Your task to perform on an android device: open chrome and create a bookmark for the current page Image 0: 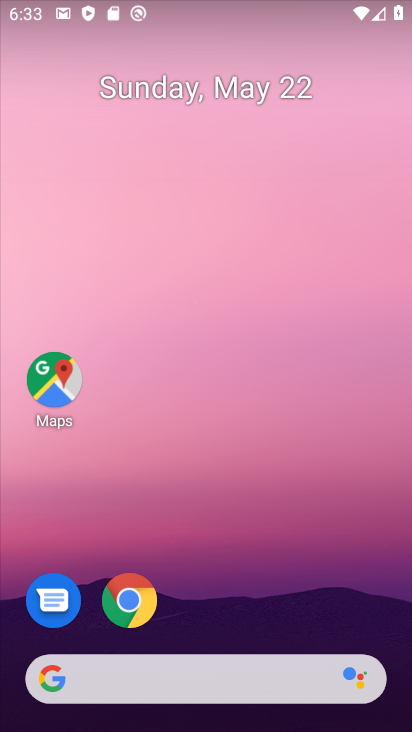
Step 0: drag from (335, 507) to (292, 135)
Your task to perform on an android device: open chrome and create a bookmark for the current page Image 1: 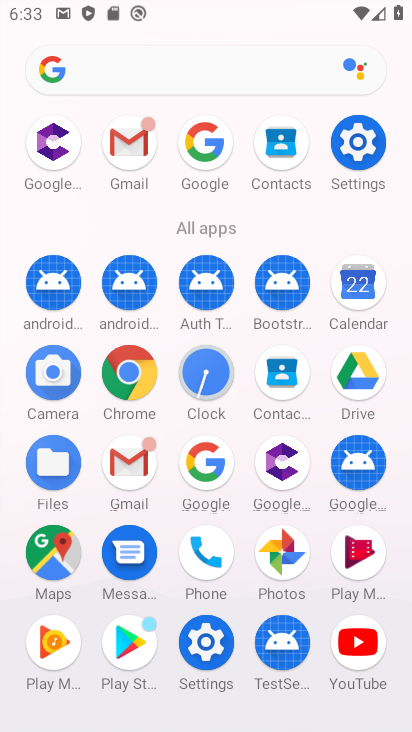
Step 1: click (135, 381)
Your task to perform on an android device: open chrome and create a bookmark for the current page Image 2: 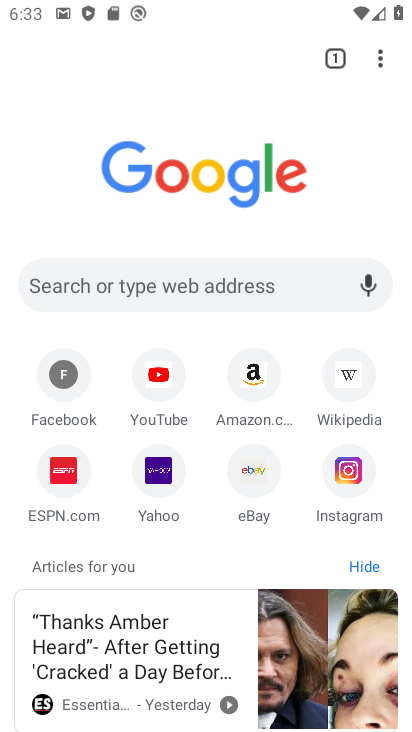
Step 2: click (380, 56)
Your task to perform on an android device: open chrome and create a bookmark for the current page Image 3: 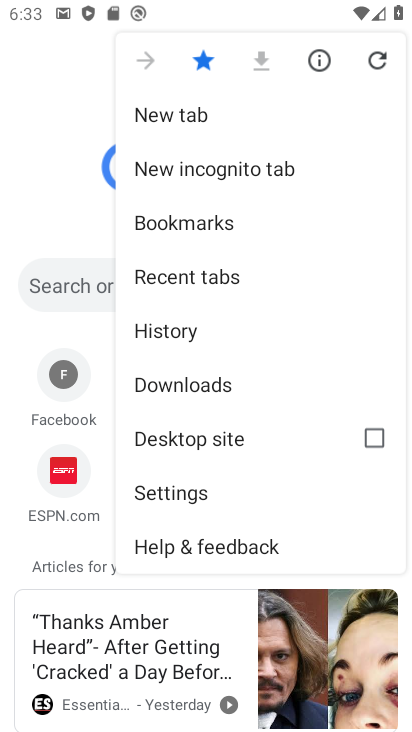
Step 3: task complete